Your task to perform on an android device: toggle notifications settings in the gmail app Image 0: 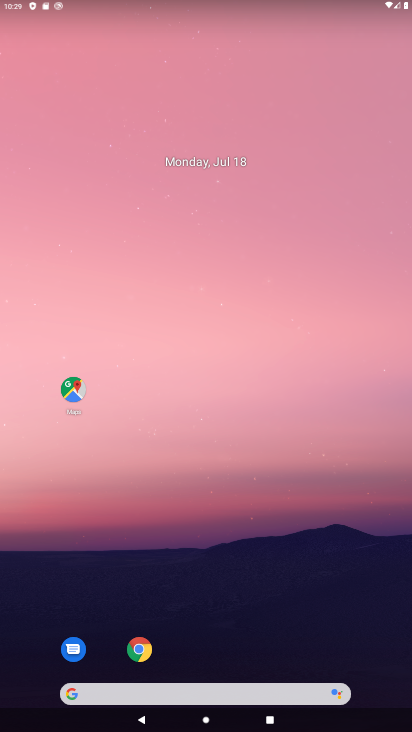
Step 0: press home button
Your task to perform on an android device: toggle notifications settings in the gmail app Image 1: 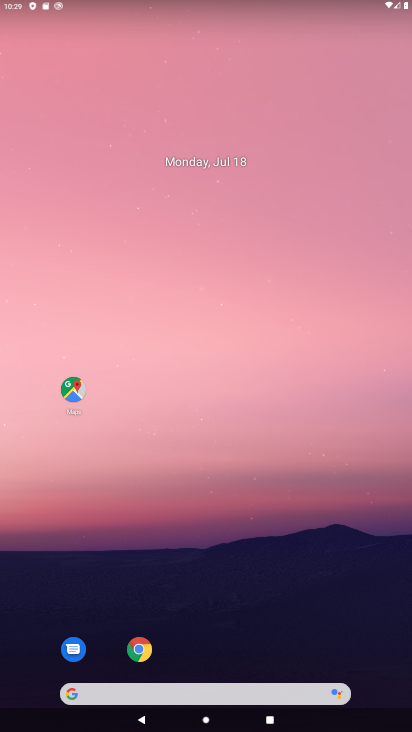
Step 1: click (287, 587)
Your task to perform on an android device: toggle notifications settings in the gmail app Image 2: 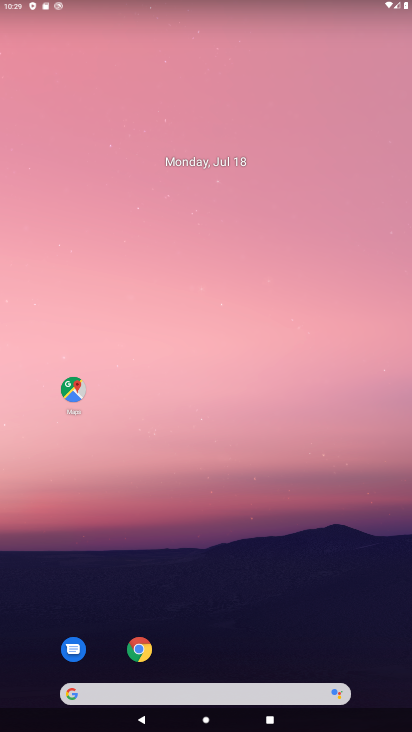
Step 2: drag from (260, 582) to (181, 18)
Your task to perform on an android device: toggle notifications settings in the gmail app Image 3: 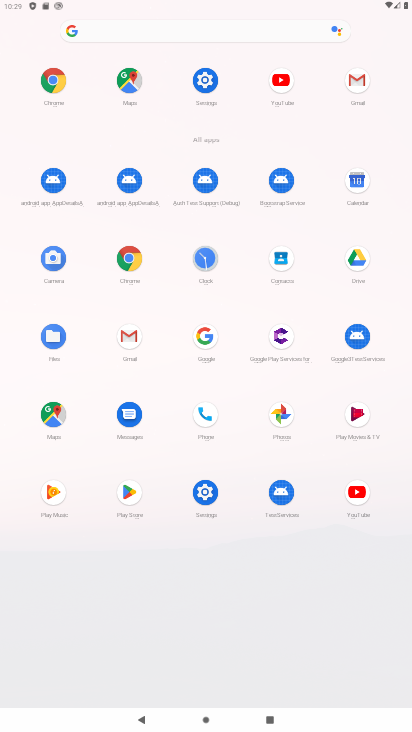
Step 3: click (357, 77)
Your task to perform on an android device: toggle notifications settings in the gmail app Image 4: 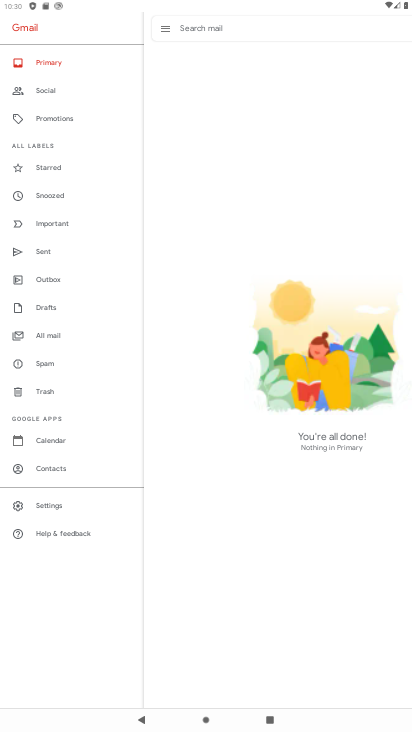
Step 4: click (49, 499)
Your task to perform on an android device: toggle notifications settings in the gmail app Image 5: 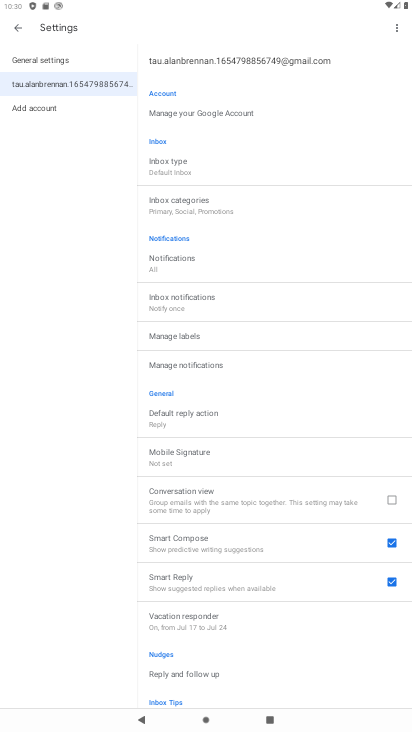
Step 5: click (26, 58)
Your task to perform on an android device: toggle notifications settings in the gmail app Image 6: 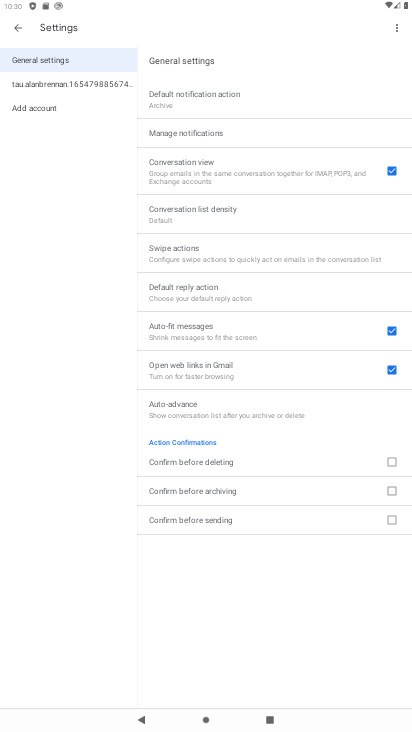
Step 6: click (184, 130)
Your task to perform on an android device: toggle notifications settings in the gmail app Image 7: 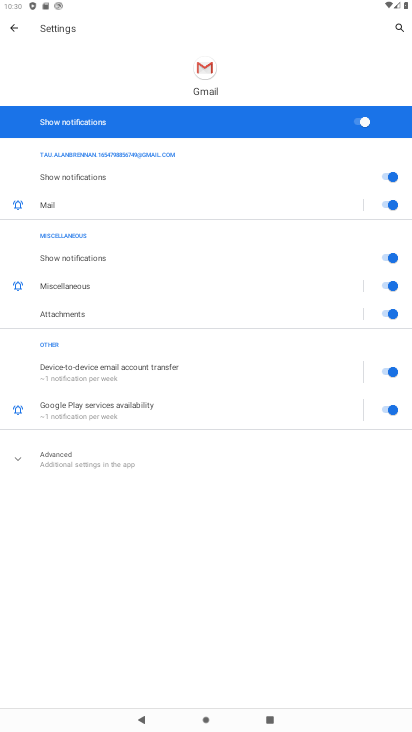
Step 7: click (369, 120)
Your task to perform on an android device: toggle notifications settings in the gmail app Image 8: 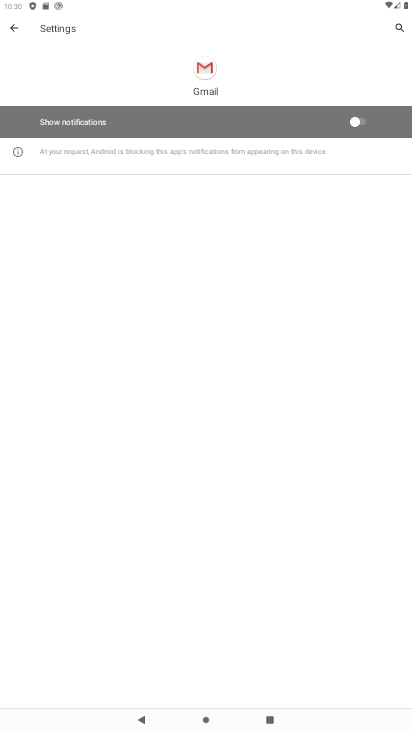
Step 8: task complete